Your task to perform on an android device: remove spam from my inbox in the gmail app Image 0: 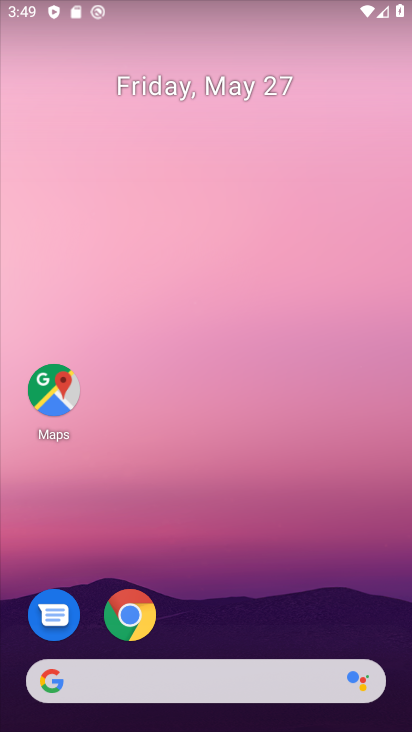
Step 0: drag from (170, 662) to (302, 162)
Your task to perform on an android device: remove spam from my inbox in the gmail app Image 1: 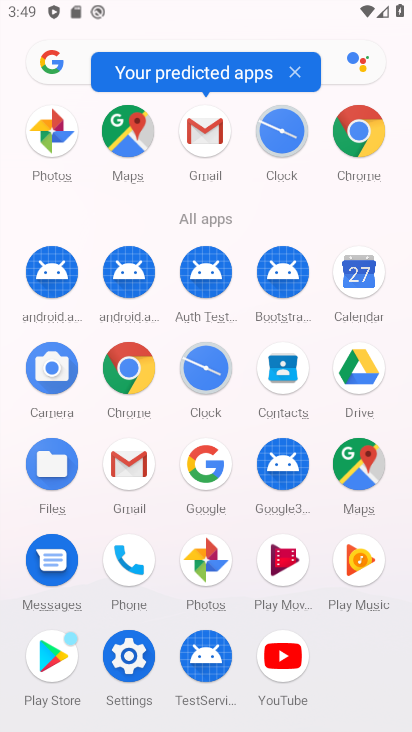
Step 1: click (125, 461)
Your task to perform on an android device: remove spam from my inbox in the gmail app Image 2: 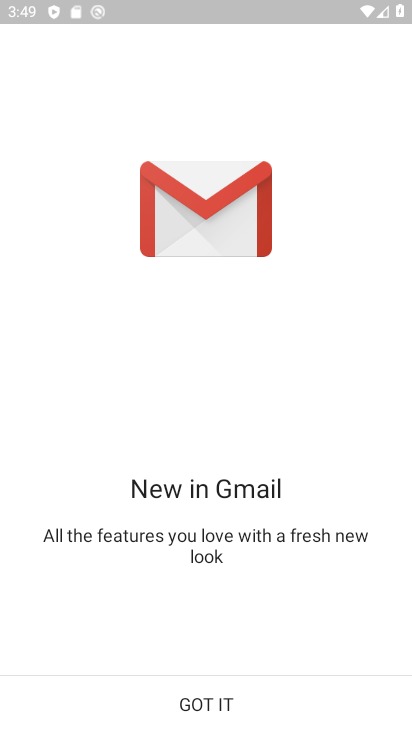
Step 2: click (243, 695)
Your task to perform on an android device: remove spam from my inbox in the gmail app Image 3: 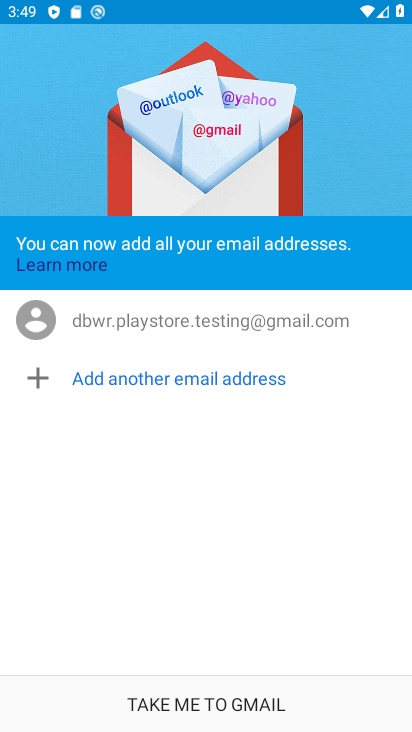
Step 3: click (248, 693)
Your task to perform on an android device: remove spam from my inbox in the gmail app Image 4: 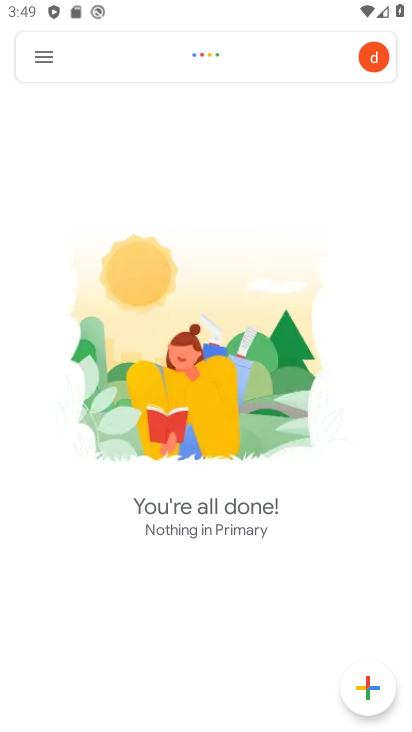
Step 4: click (55, 59)
Your task to perform on an android device: remove spam from my inbox in the gmail app Image 5: 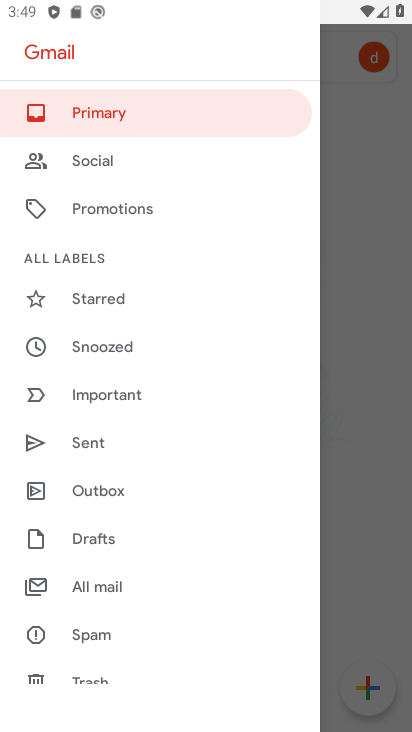
Step 5: click (122, 632)
Your task to perform on an android device: remove spam from my inbox in the gmail app Image 6: 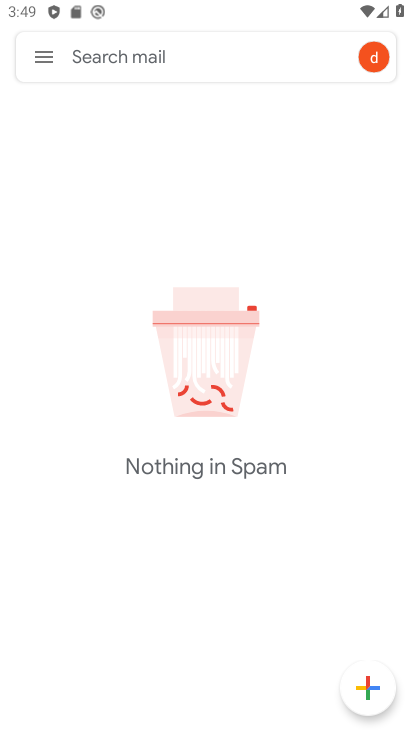
Step 6: task complete